Your task to perform on an android device: set an alarm Image 0: 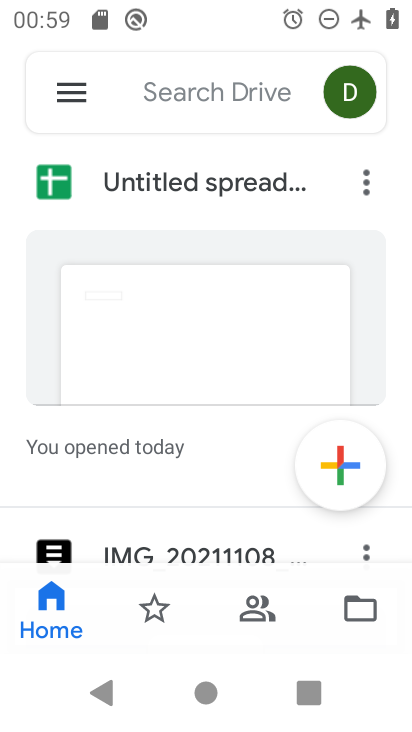
Step 0: press home button
Your task to perform on an android device: set an alarm Image 1: 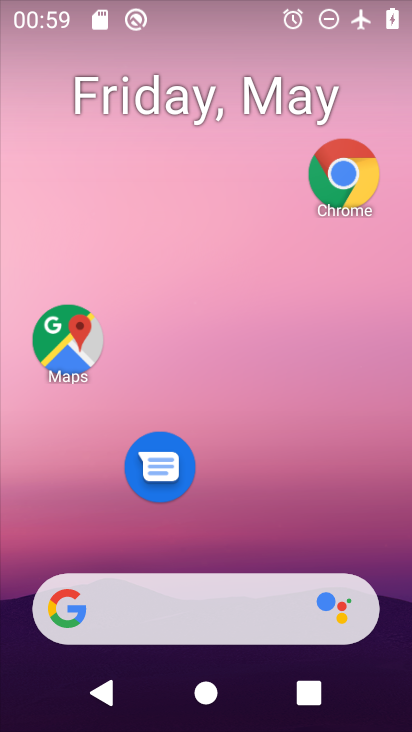
Step 1: drag from (265, 533) to (253, 182)
Your task to perform on an android device: set an alarm Image 2: 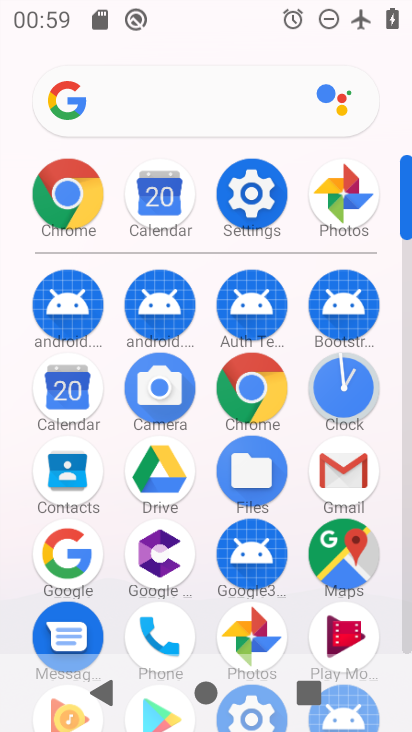
Step 2: click (354, 378)
Your task to perform on an android device: set an alarm Image 3: 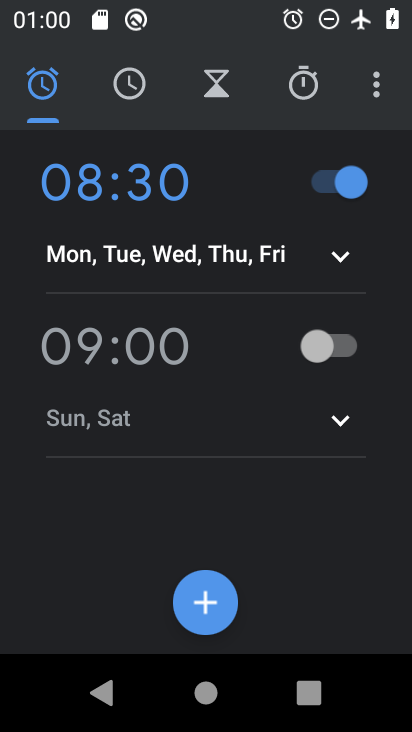
Step 3: task complete